Your task to perform on an android device: What's a good restaurant in Los Angeles? Image 0: 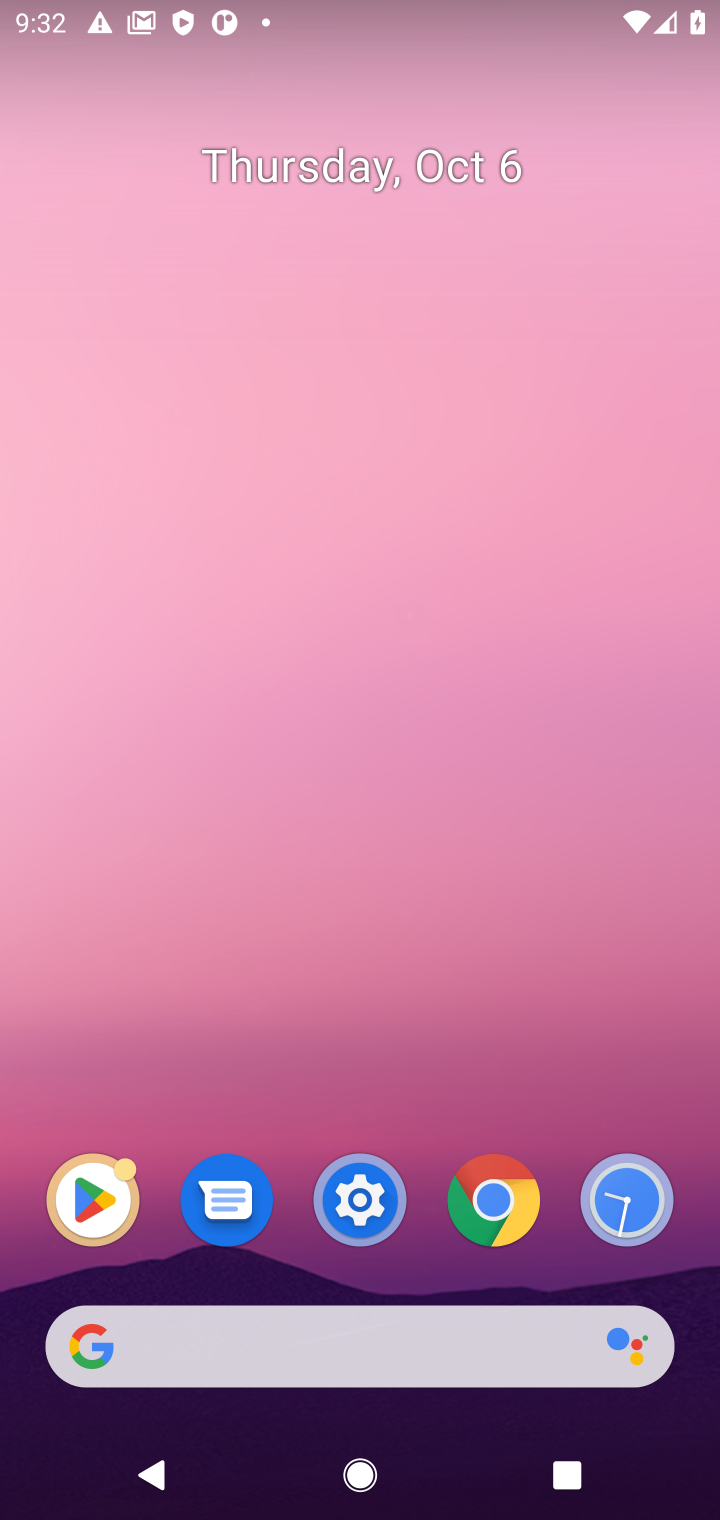
Step 0: drag from (398, 457) to (398, 179)
Your task to perform on an android device: What's a good restaurant in Los Angeles? Image 1: 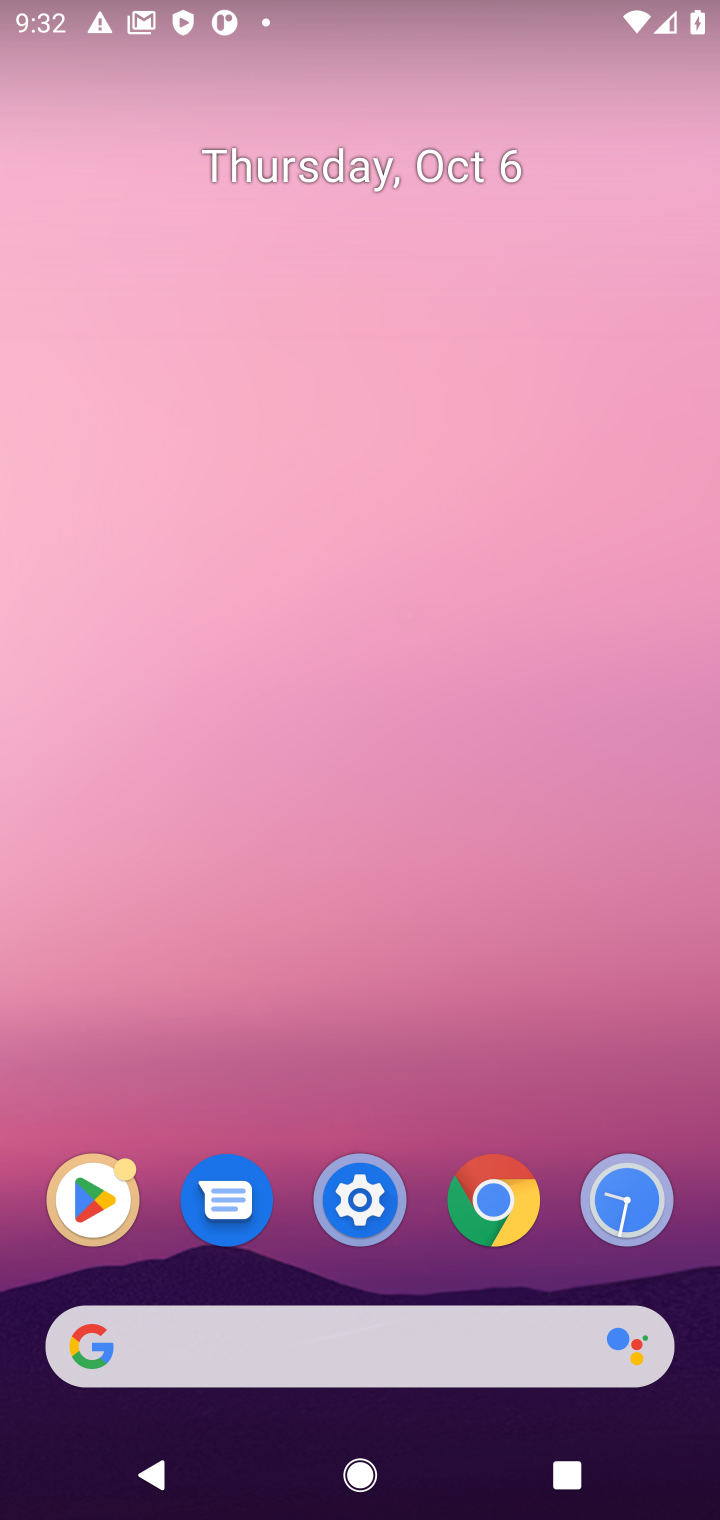
Step 1: drag from (354, 1291) to (354, 193)
Your task to perform on an android device: What's a good restaurant in Los Angeles? Image 2: 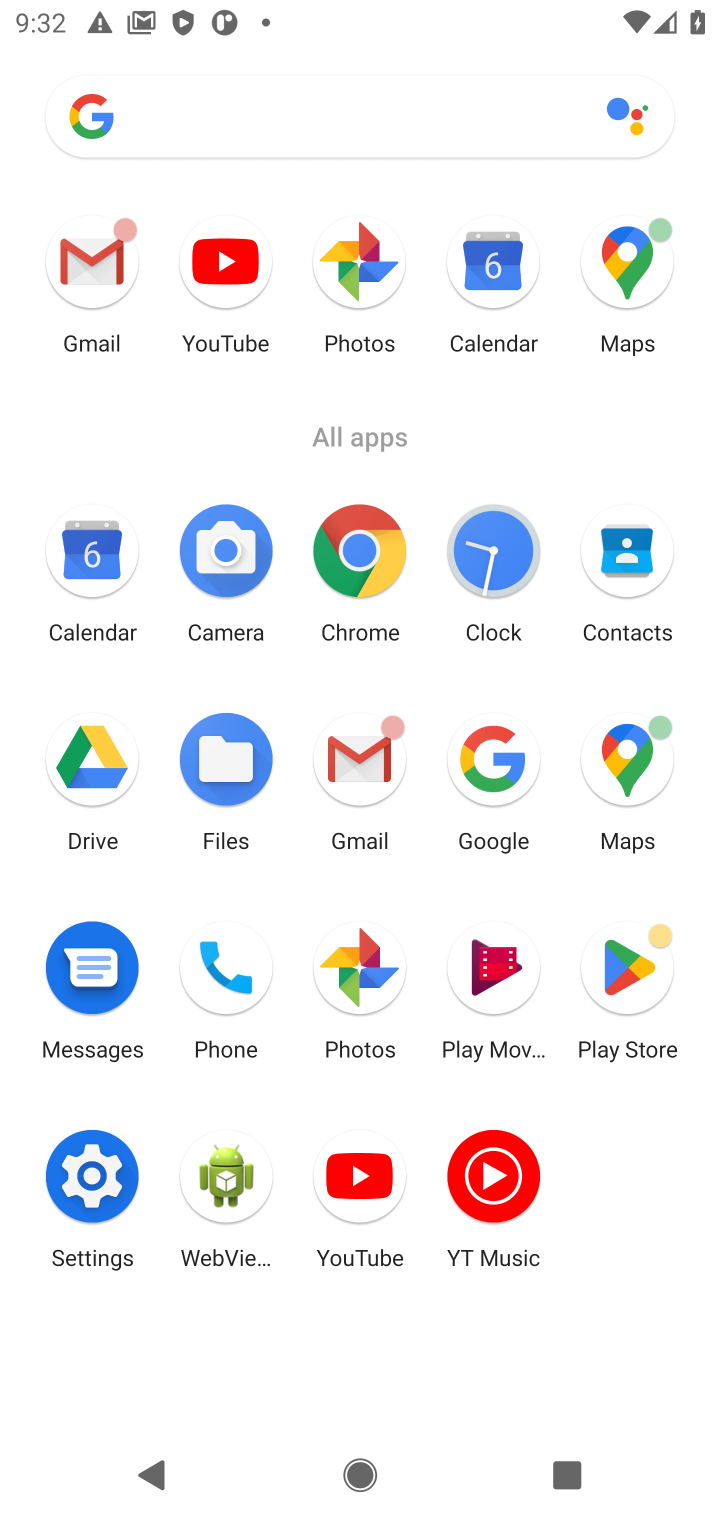
Step 2: click (479, 766)
Your task to perform on an android device: What's a good restaurant in Los Angeles? Image 3: 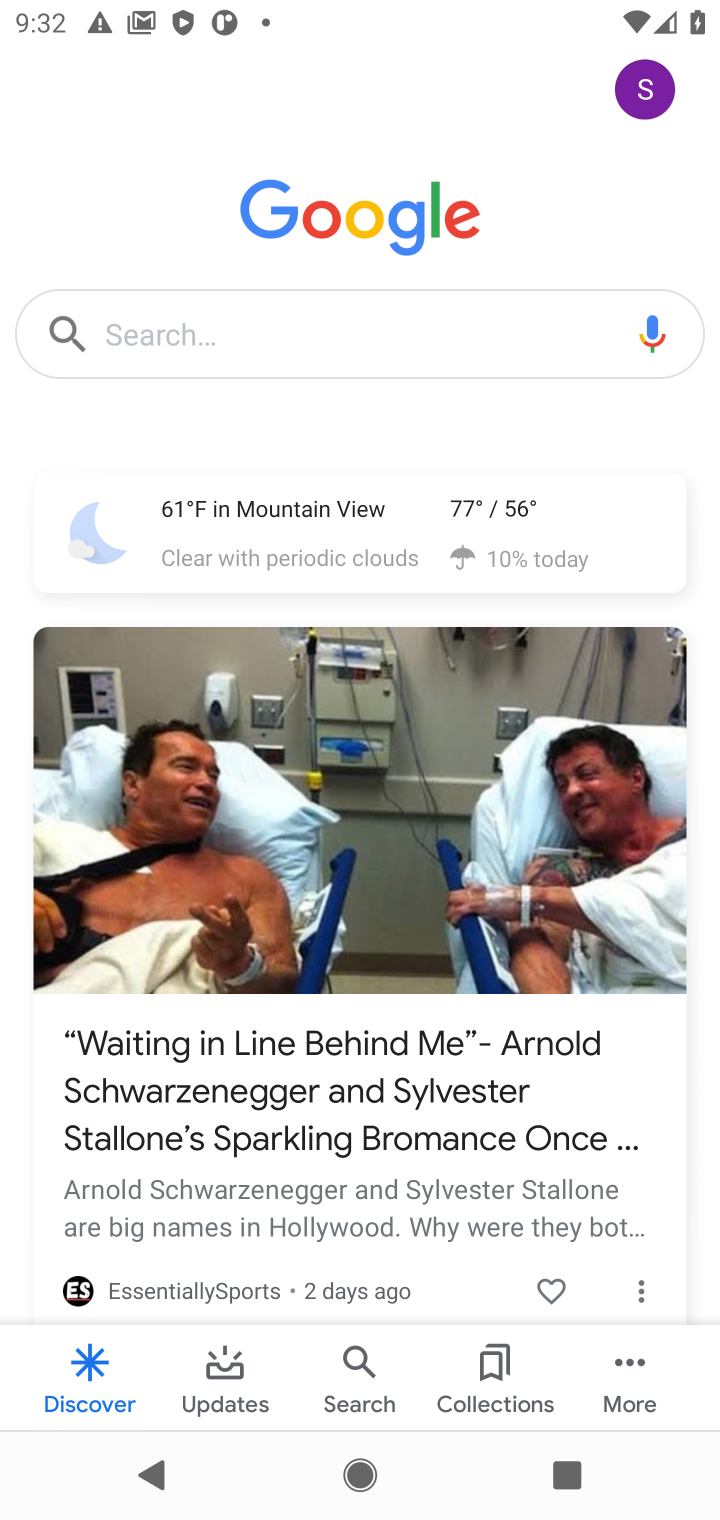
Step 3: type "What's a good restaurant in Los Angeles?"
Your task to perform on an android device: What's a good restaurant in Los Angeles? Image 4: 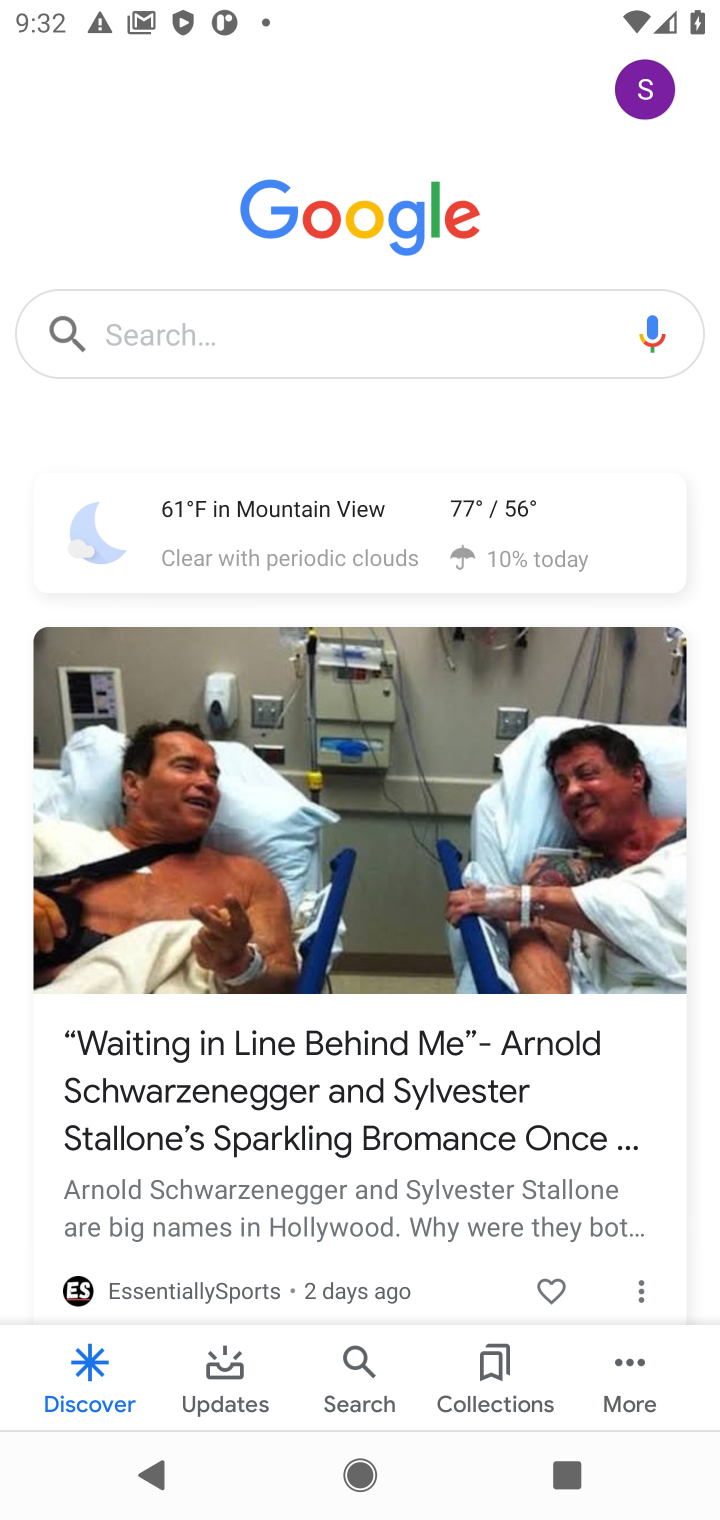
Step 4: click (127, 327)
Your task to perform on an android device: What's a good restaurant in Los Angeles? Image 5: 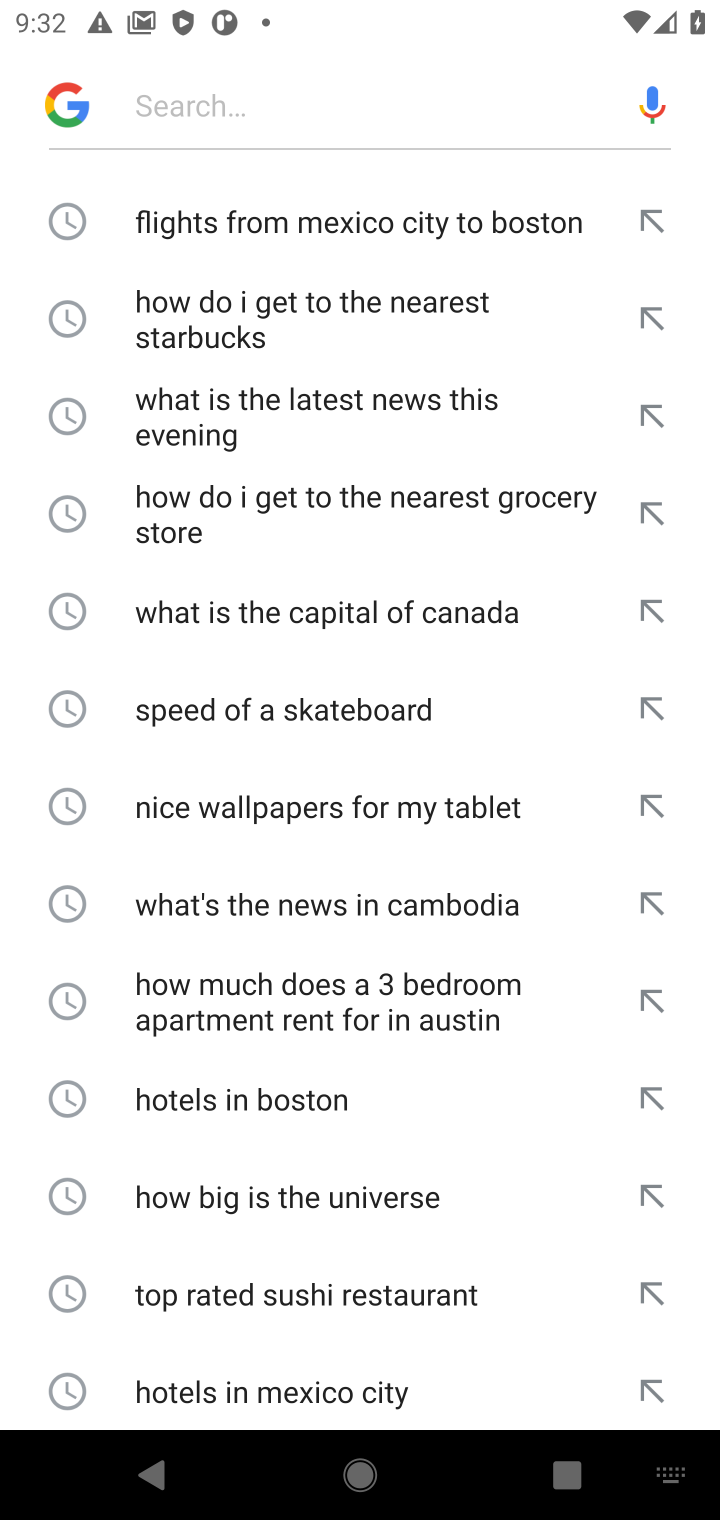
Step 5: type "What's a good restaurant in Los Angeles?"
Your task to perform on an android device: What's a good restaurant in Los Angeles? Image 6: 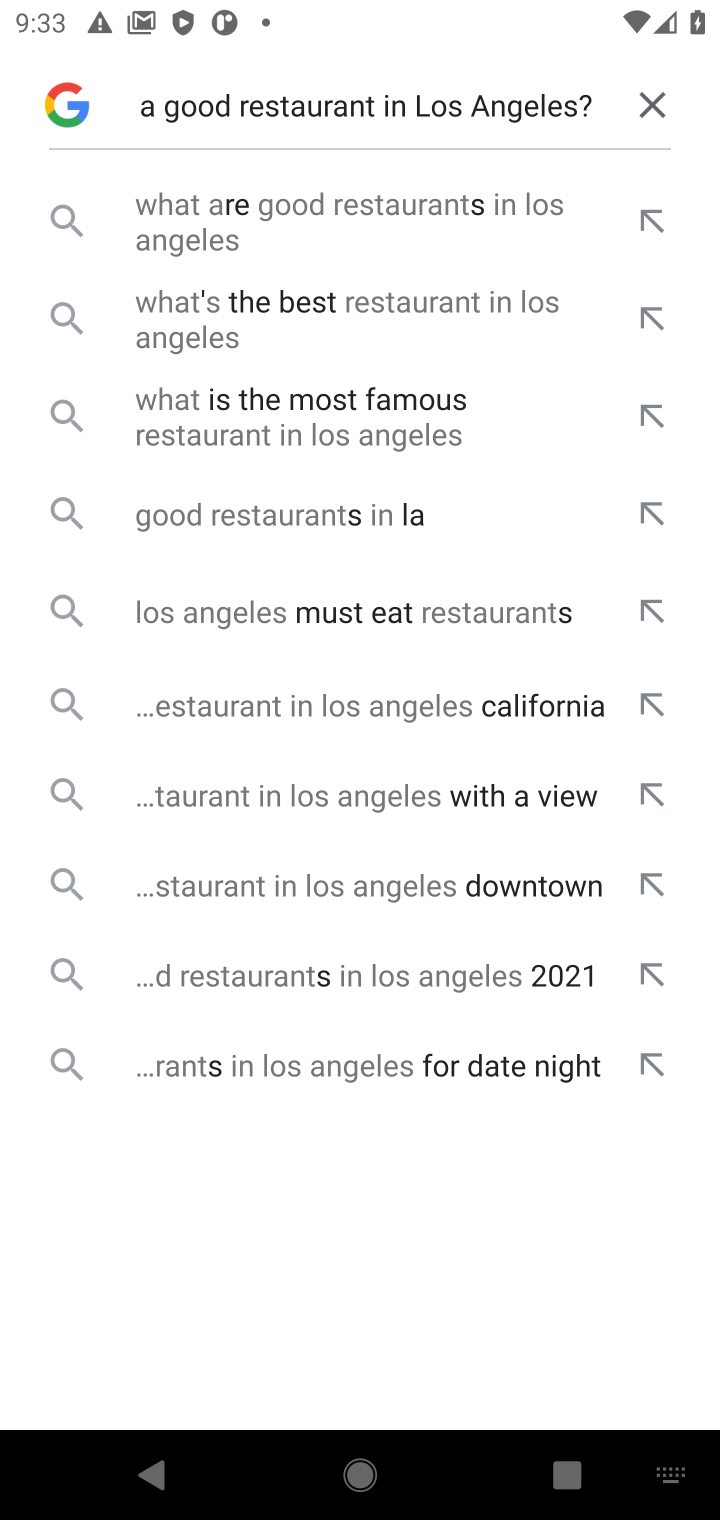
Step 6: click (368, 215)
Your task to perform on an android device: What's a good restaurant in Los Angeles? Image 7: 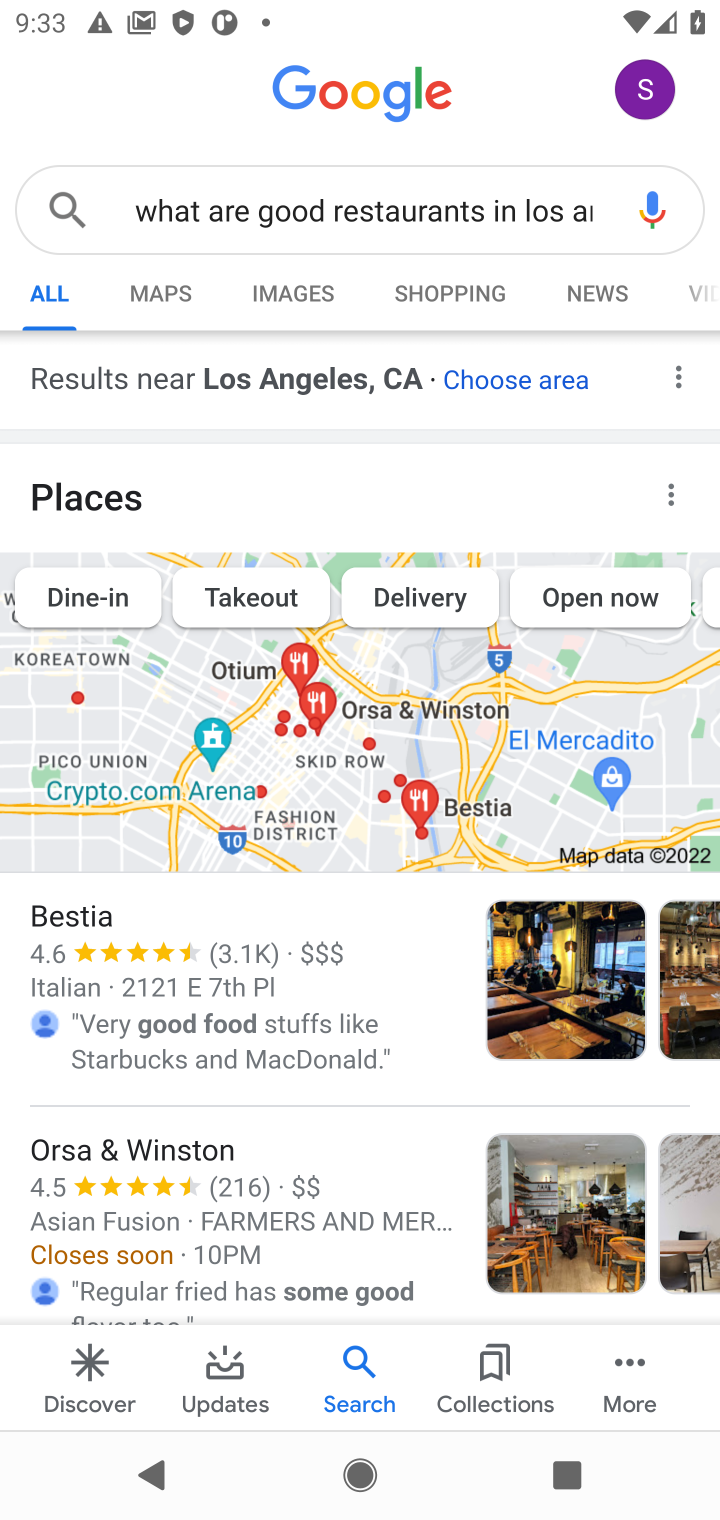
Step 7: task complete